Your task to perform on an android device: turn off notifications settings in the gmail app Image 0: 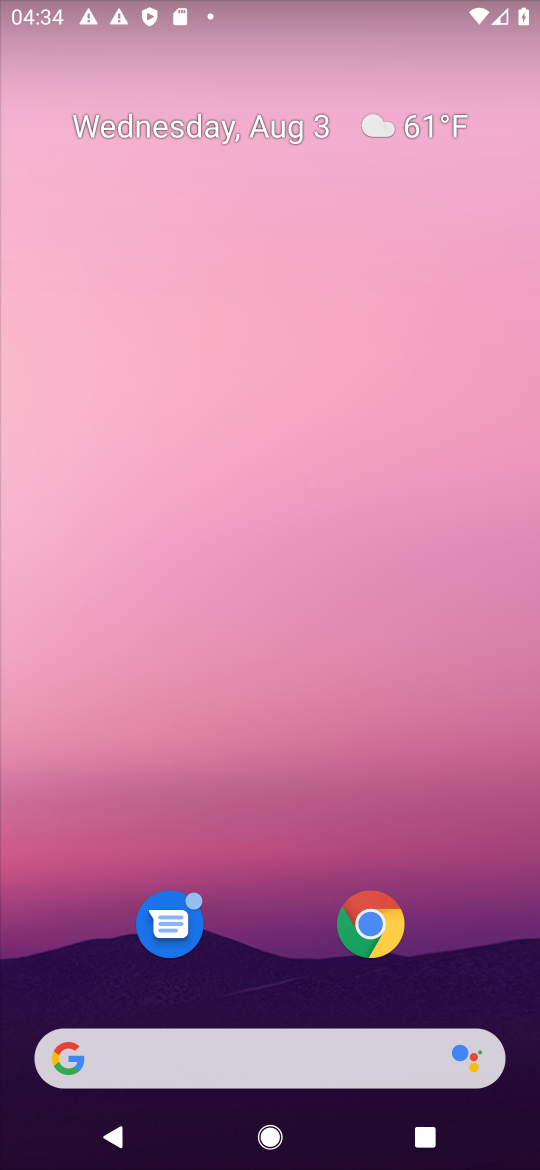
Step 0: drag from (266, 916) to (294, 379)
Your task to perform on an android device: turn off notifications settings in the gmail app Image 1: 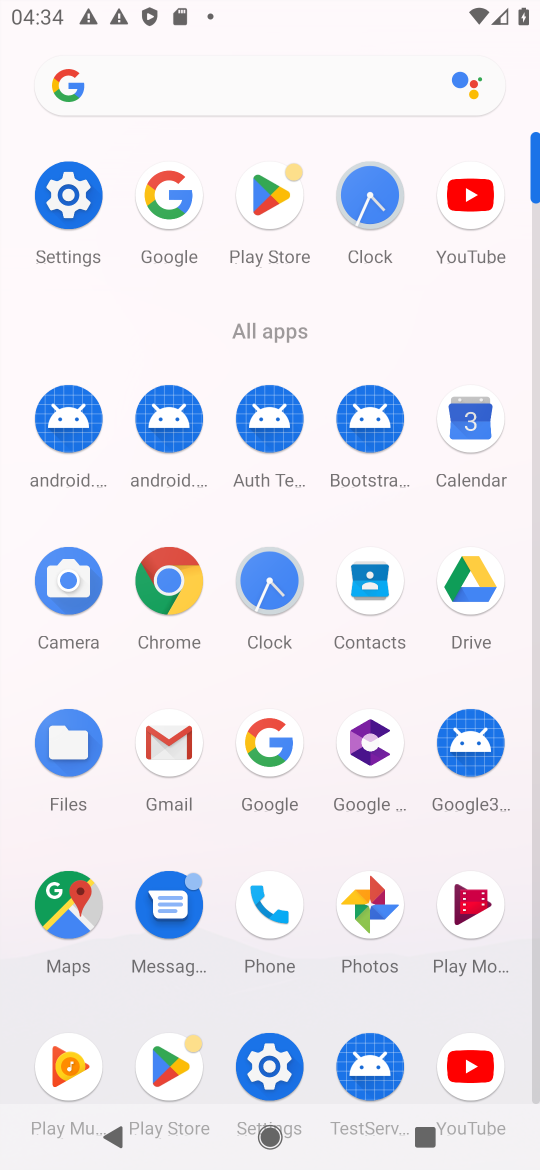
Step 1: click (157, 770)
Your task to perform on an android device: turn off notifications settings in the gmail app Image 2: 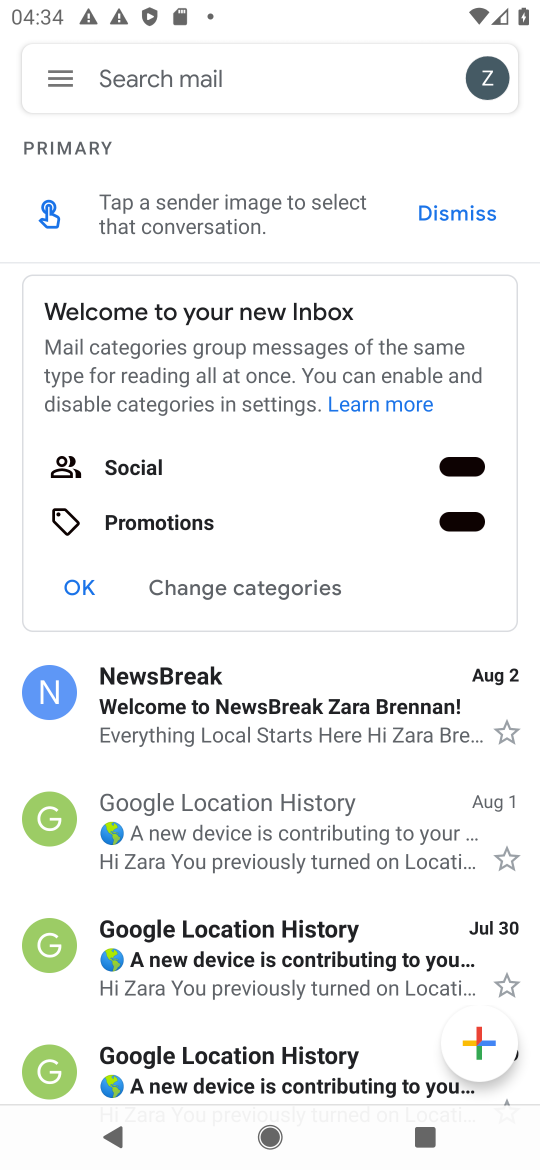
Step 2: click (60, 93)
Your task to perform on an android device: turn off notifications settings in the gmail app Image 3: 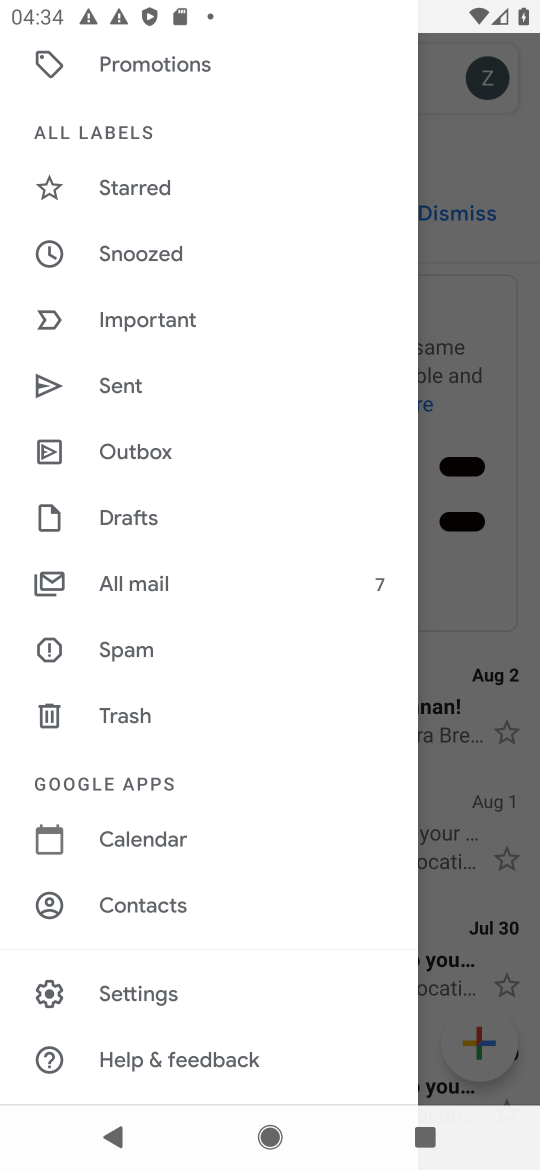
Step 3: click (186, 994)
Your task to perform on an android device: turn off notifications settings in the gmail app Image 4: 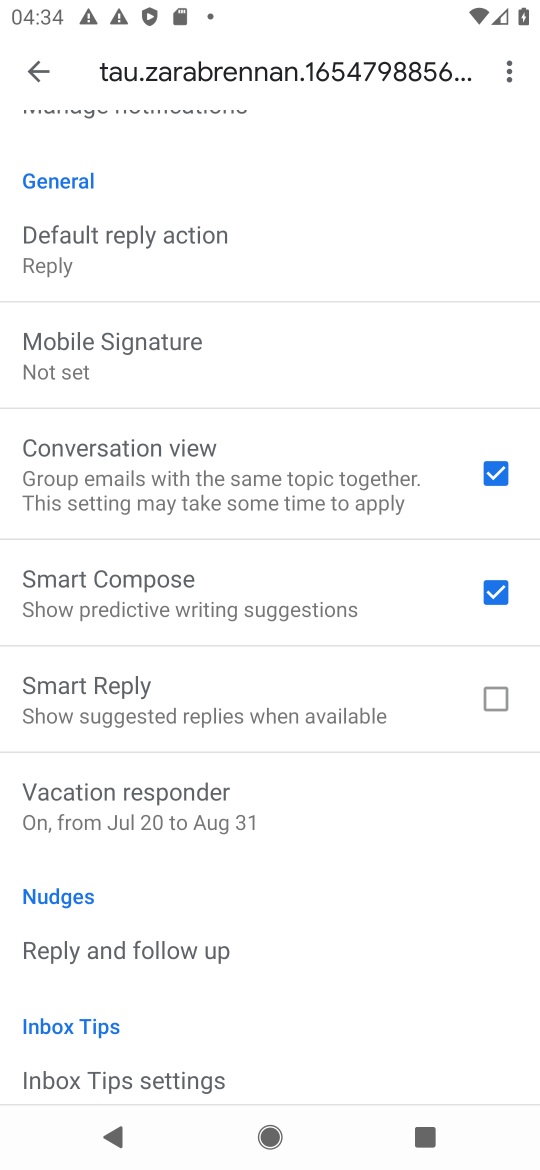
Step 4: click (244, 853)
Your task to perform on an android device: turn off notifications settings in the gmail app Image 5: 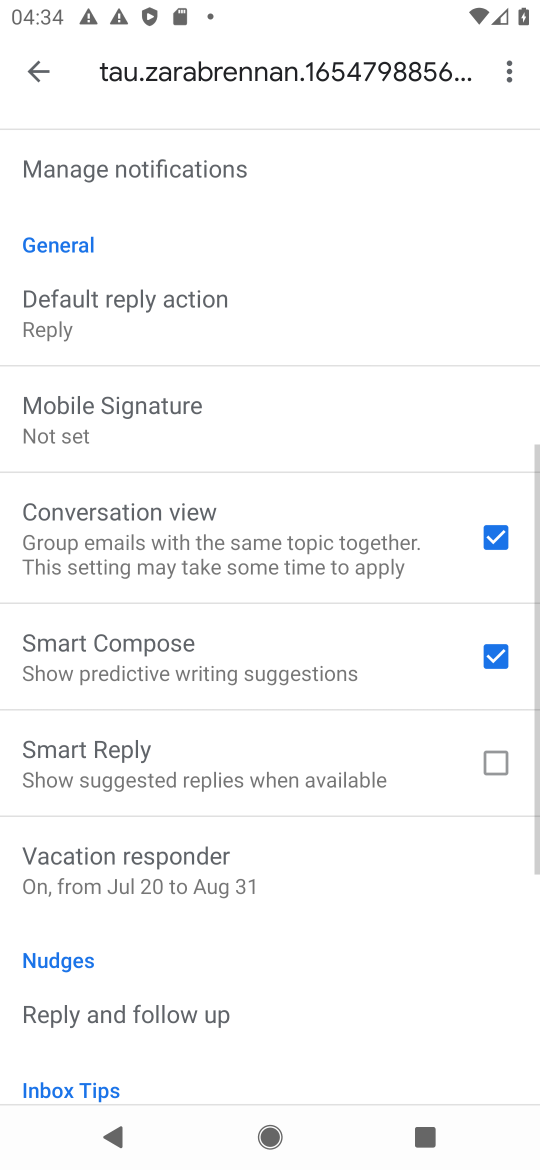
Step 5: drag from (310, 369) to (311, 788)
Your task to perform on an android device: turn off notifications settings in the gmail app Image 6: 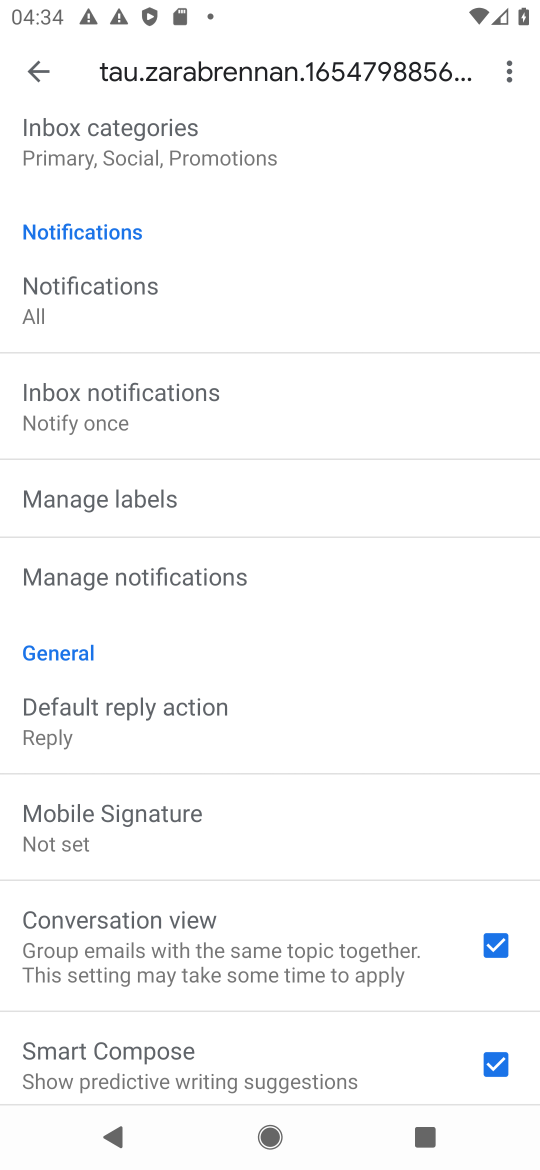
Step 6: click (302, 592)
Your task to perform on an android device: turn off notifications settings in the gmail app Image 7: 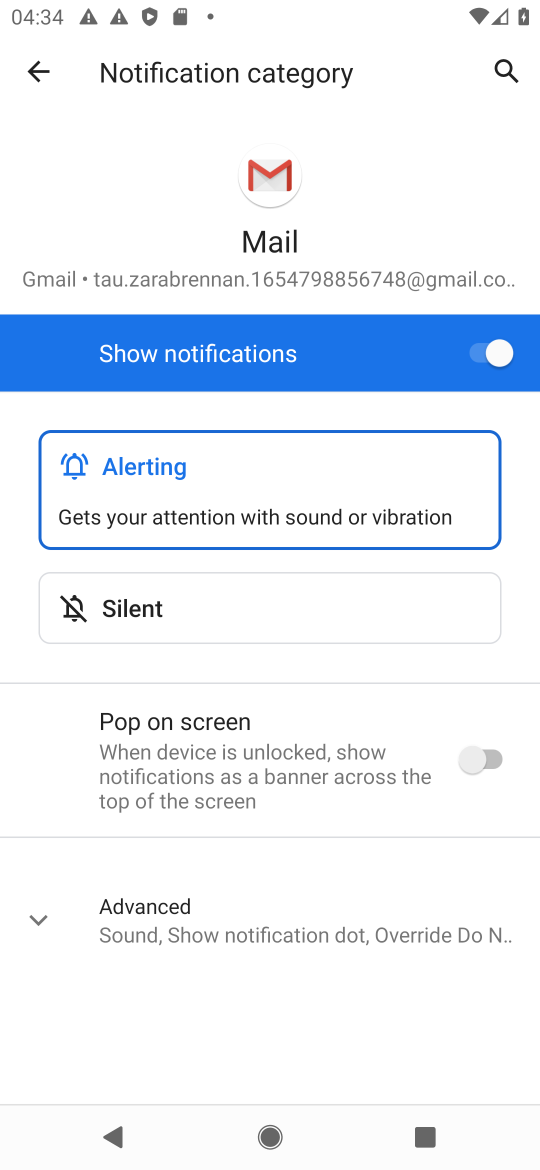
Step 7: click (483, 359)
Your task to perform on an android device: turn off notifications settings in the gmail app Image 8: 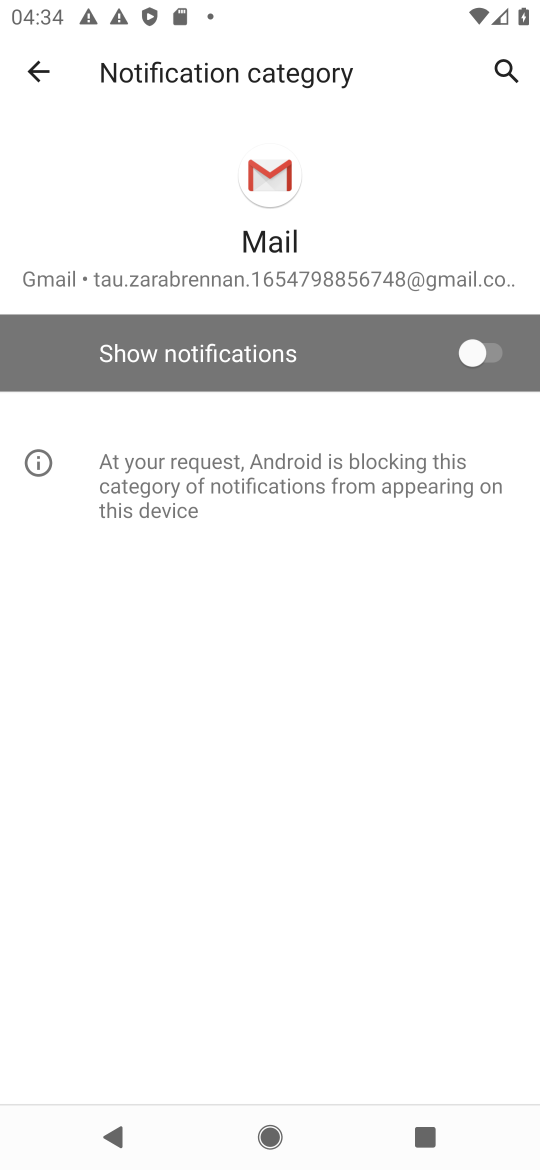
Step 8: task complete